Your task to perform on an android device: Open internet settings Image 0: 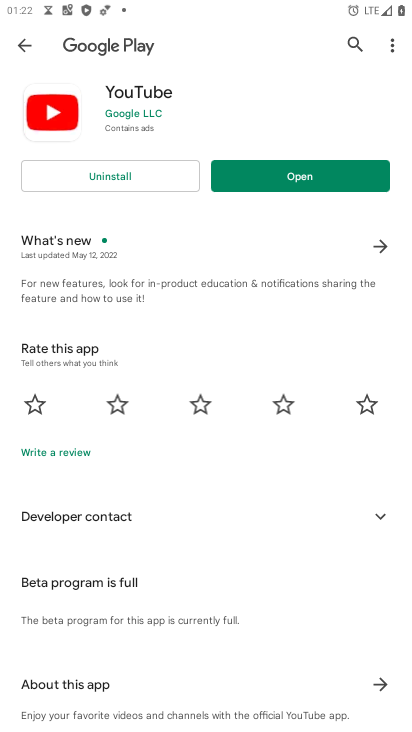
Step 0: press home button
Your task to perform on an android device: Open internet settings Image 1: 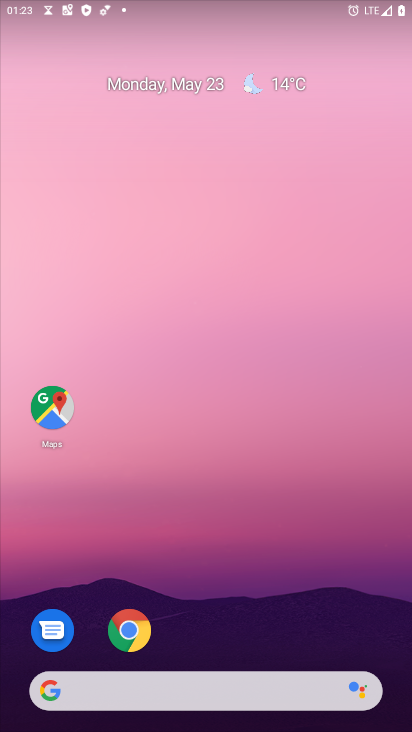
Step 1: drag from (335, 467) to (295, 20)
Your task to perform on an android device: Open internet settings Image 2: 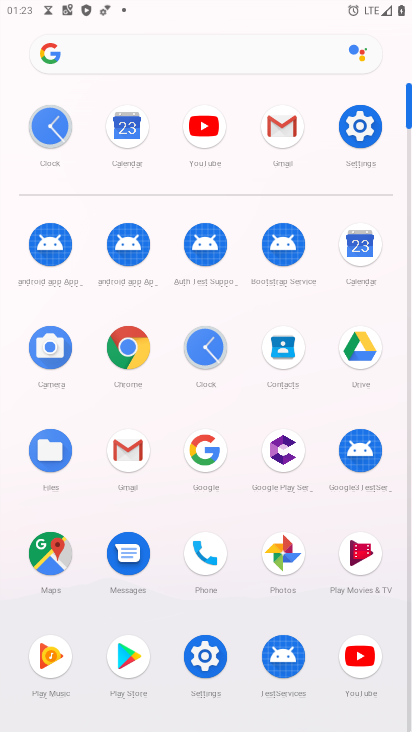
Step 2: click (216, 652)
Your task to perform on an android device: Open internet settings Image 3: 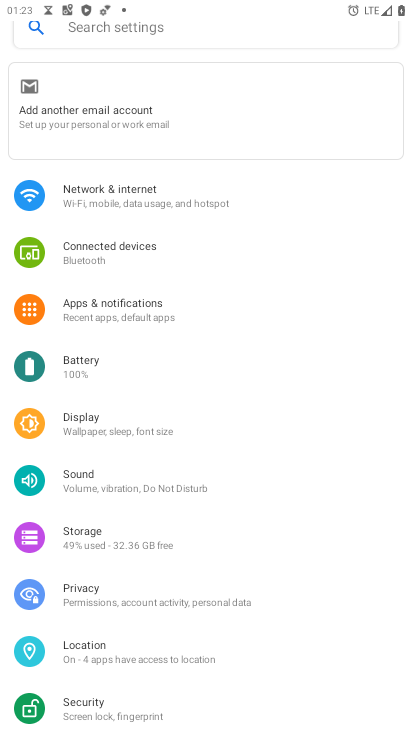
Step 3: click (170, 204)
Your task to perform on an android device: Open internet settings Image 4: 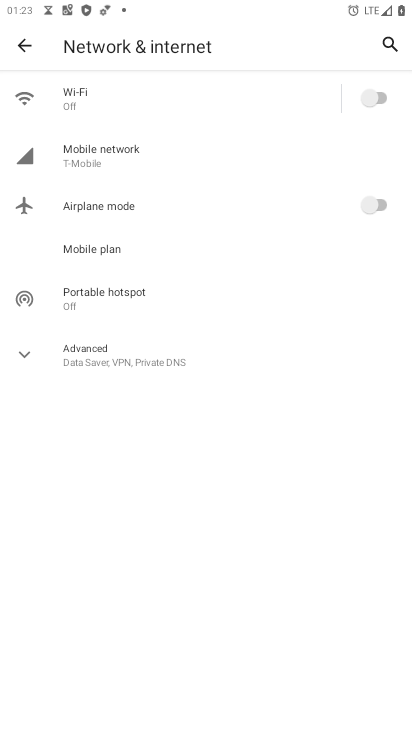
Step 4: task complete